Your task to perform on an android device: Go to ESPN.com Image 0: 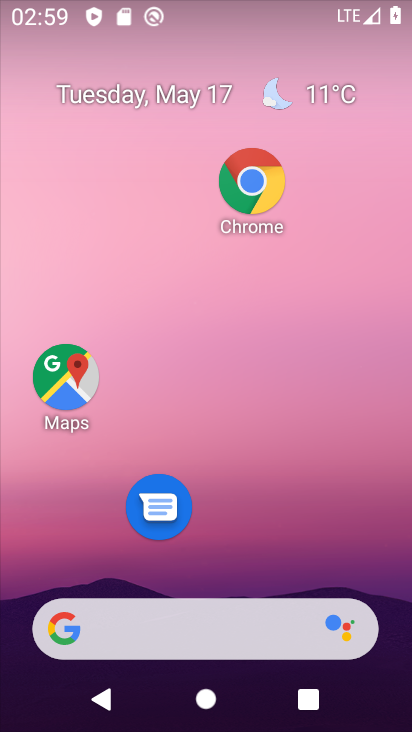
Step 0: click (142, 608)
Your task to perform on an android device: Go to ESPN.com Image 1: 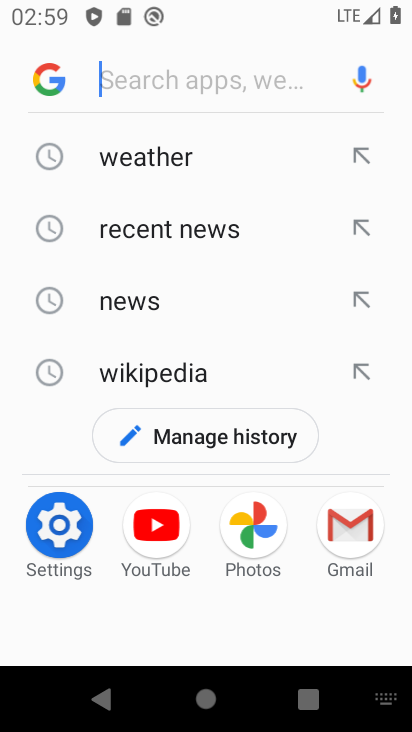
Step 1: type "espn.com"
Your task to perform on an android device: Go to ESPN.com Image 2: 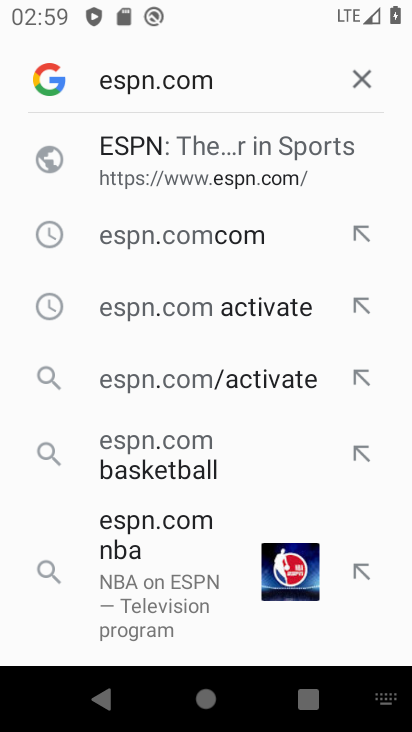
Step 2: click (209, 143)
Your task to perform on an android device: Go to ESPN.com Image 3: 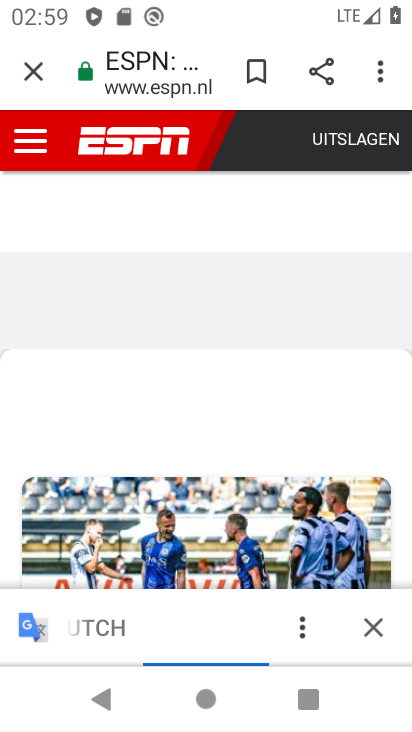
Step 3: task complete